Your task to perform on an android device: turn on priority inbox in the gmail app Image 0: 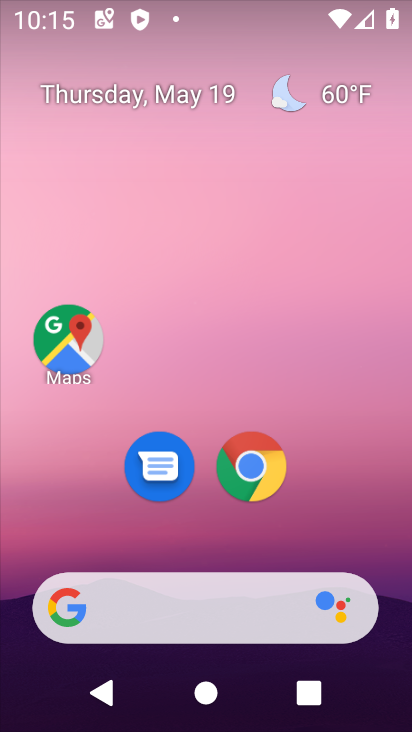
Step 0: drag from (292, 462) to (298, 198)
Your task to perform on an android device: turn on priority inbox in the gmail app Image 1: 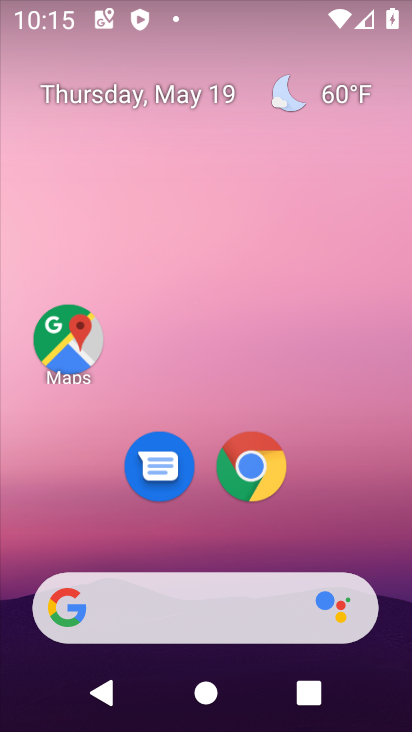
Step 1: drag from (372, 516) to (358, 47)
Your task to perform on an android device: turn on priority inbox in the gmail app Image 2: 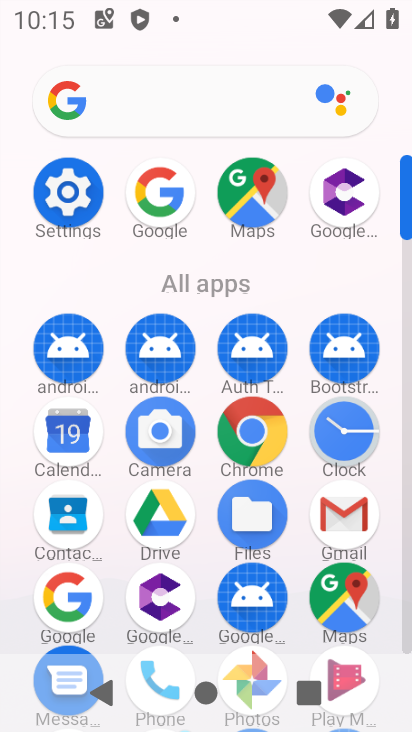
Step 2: click (364, 521)
Your task to perform on an android device: turn on priority inbox in the gmail app Image 3: 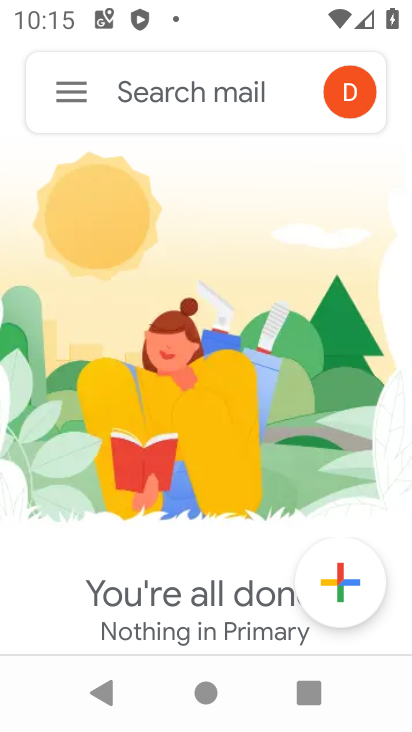
Step 3: click (65, 90)
Your task to perform on an android device: turn on priority inbox in the gmail app Image 4: 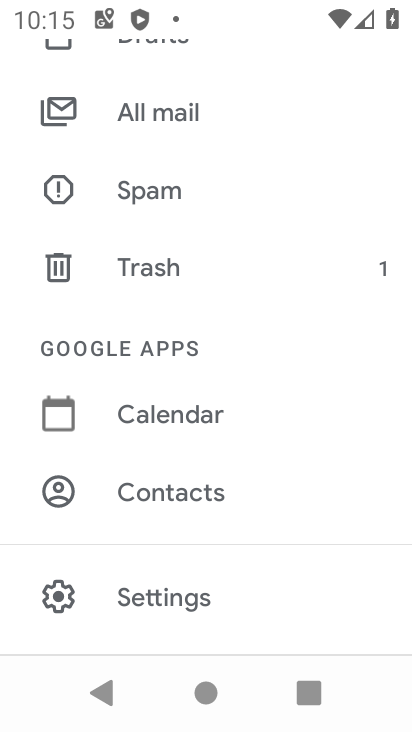
Step 4: click (191, 589)
Your task to perform on an android device: turn on priority inbox in the gmail app Image 5: 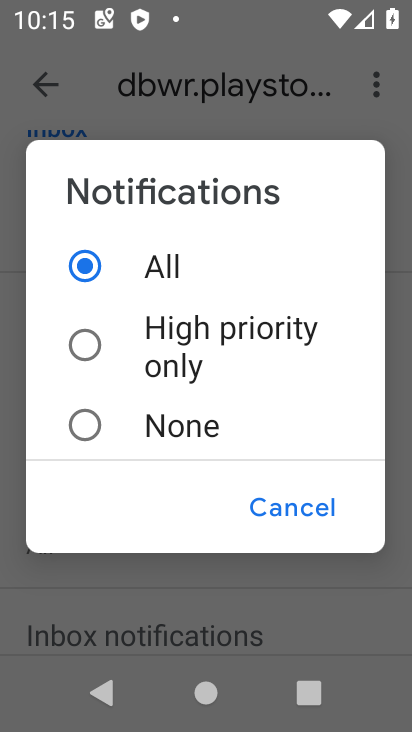
Step 5: press back button
Your task to perform on an android device: turn on priority inbox in the gmail app Image 6: 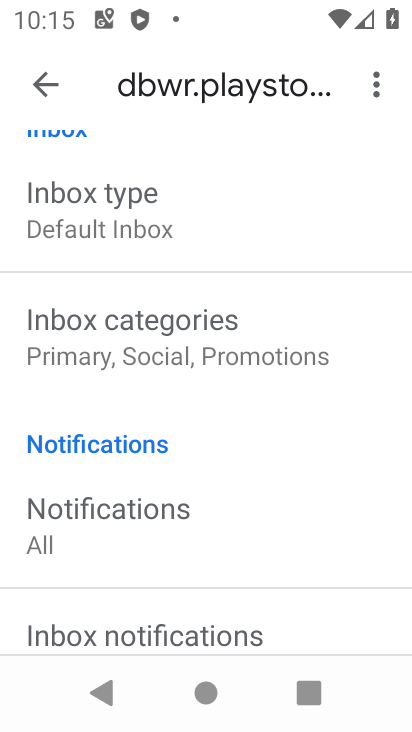
Step 6: click (135, 241)
Your task to perform on an android device: turn on priority inbox in the gmail app Image 7: 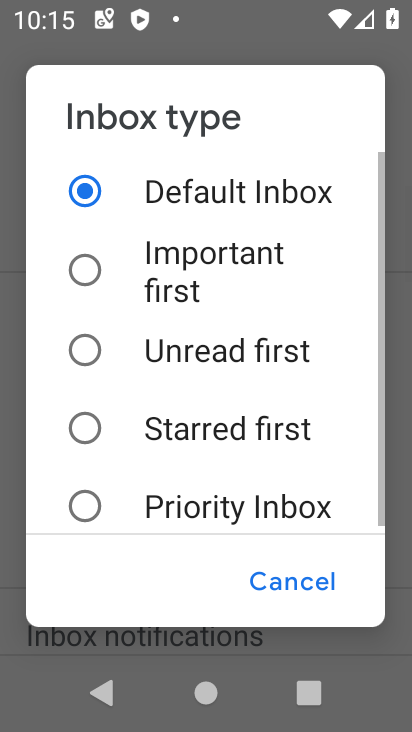
Step 7: click (236, 514)
Your task to perform on an android device: turn on priority inbox in the gmail app Image 8: 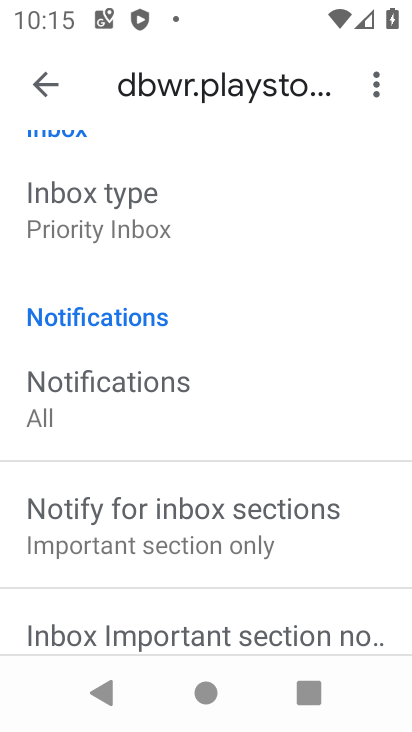
Step 8: task complete